Your task to perform on an android device: delete the emails in spam in the gmail app Image 0: 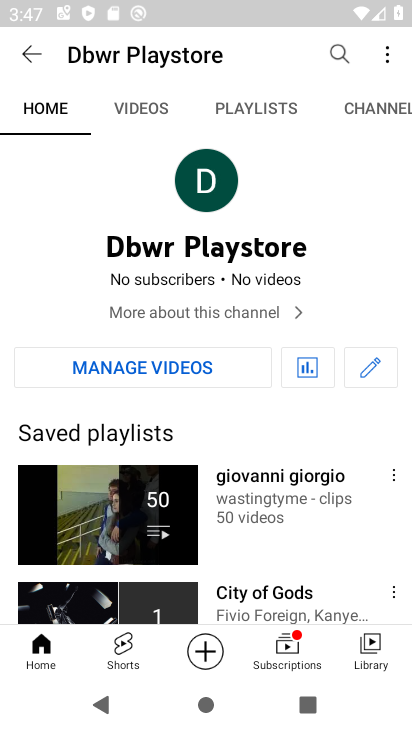
Step 0: press home button
Your task to perform on an android device: delete the emails in spam in the gmail app Image 1: 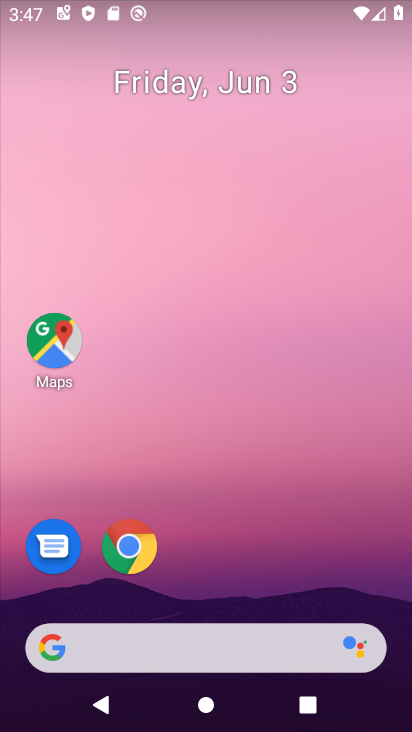
Step 1: drag from (251, 525) to (265, 19)
Your task to perform on an android device: delete the emails in spam in the gmail app Image 2: 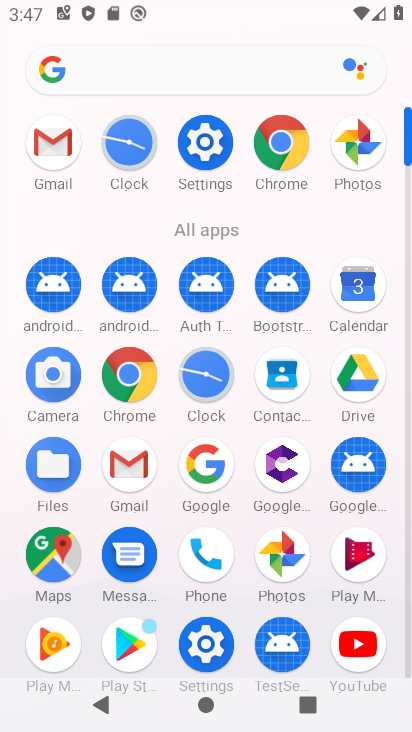
Step 2: click (38, 123)
Your task to perform on an android device: delete the emails in spam in the gmail app Image 3: 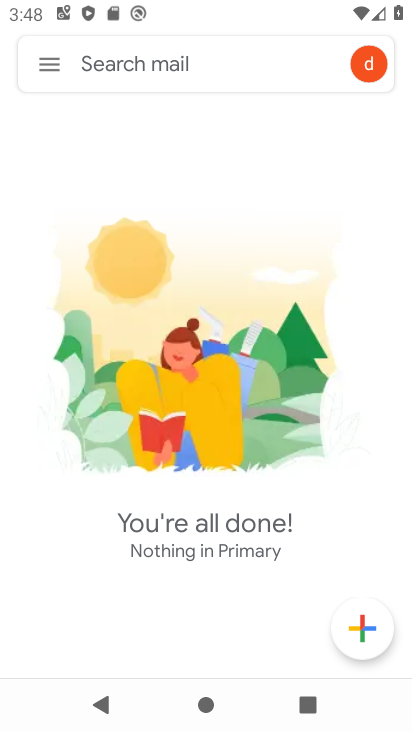
Step 3: click (46, 60)
Your task to perform on an android device: delete the emails in spam in the gmail app Image 4: 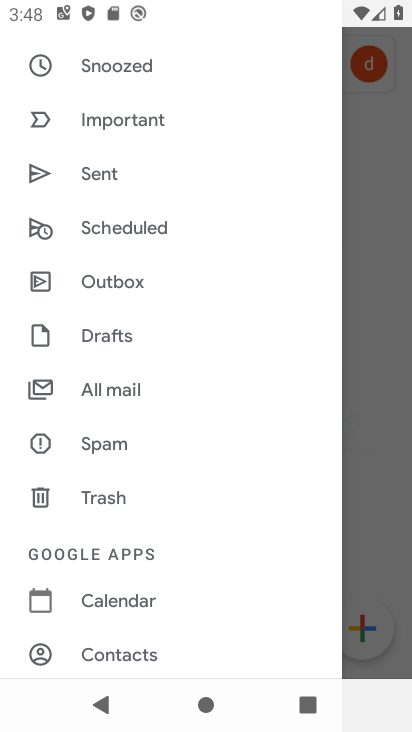
Step 4: click (149, 442)
Your task to perform on an android device: delete the emails in spam in the gmail app Image 5: 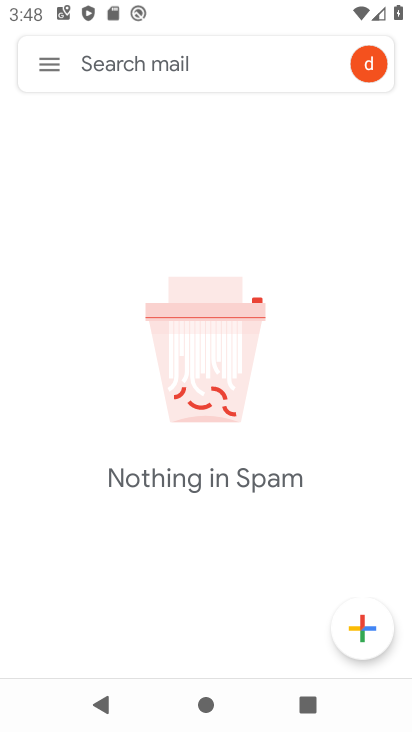
Step 5: task complete